Your task to perform on an android device: turn vacation reply on in the gmail app Image 0: 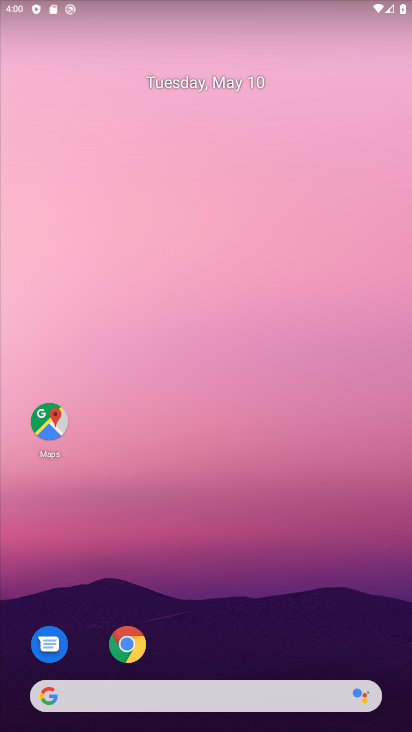
Step 0: drag from (145, 667) to (201, 422)
Your task to perform on an android device: turn vacation reply on in the gmail app Image 1: 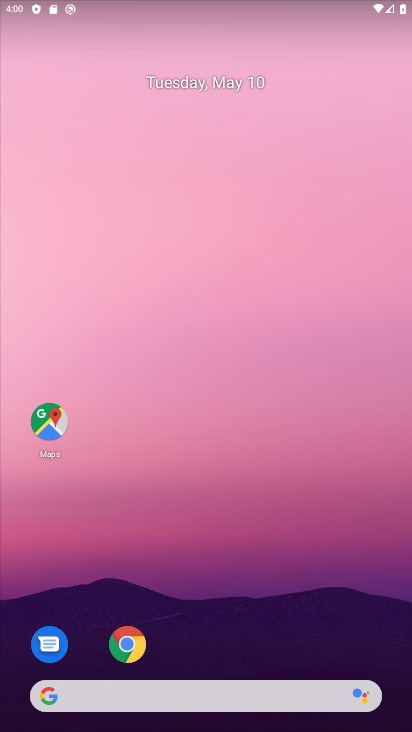
Step 1: drag from (230, 668) to (241, 332)
Your task to perform on an android device: turn vacation reply on in the gmail app Image 2: 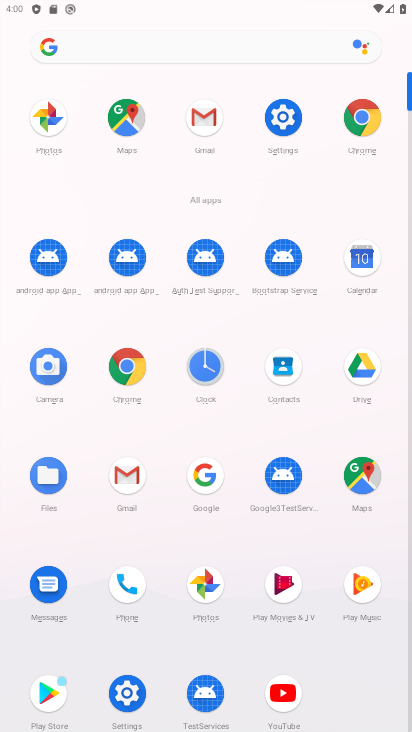
Step 2: click (282, 121)
Your task to perform on an android device: turn vacation reply on in the gmail app Image 3: 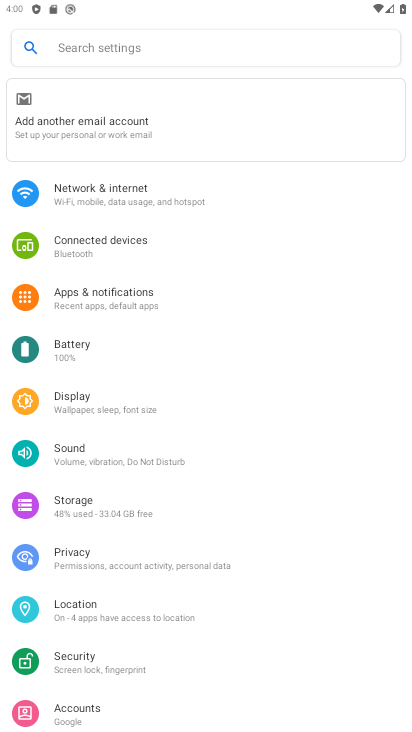
Step 3: click (74, 450)
Your task to perform on an android device: turn vacation reply on in the gmail app Image 4: 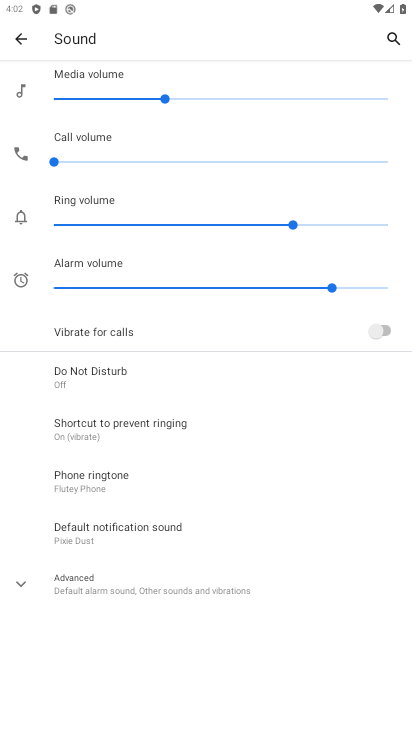
Step 4: press home button
Your task to perform on an android device: turn vacation reply on in the gmail app Image 5: 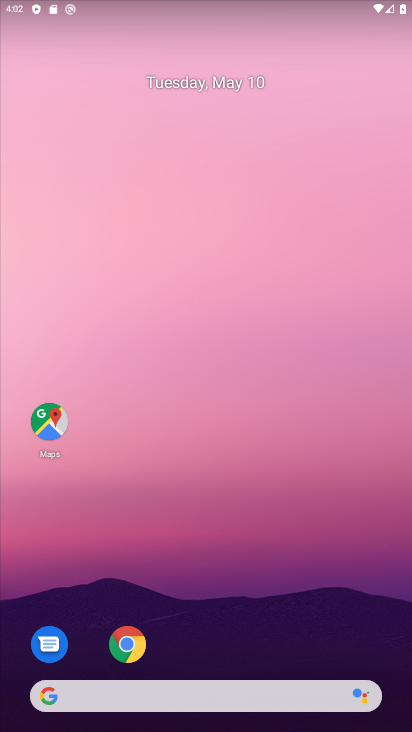
Step 5: drag from (161, 676) to (209, 352)
Your task to perform on an android device: turn vacation reply on in the gmail app Image 6: 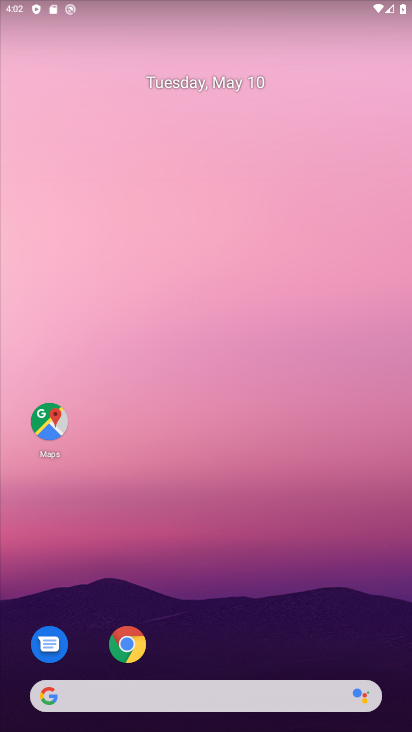
Step 6: drag from (241, 674) to (241, 225)
Your task to perform on an android device: turn vacation reply on in the gmail app Image 7: 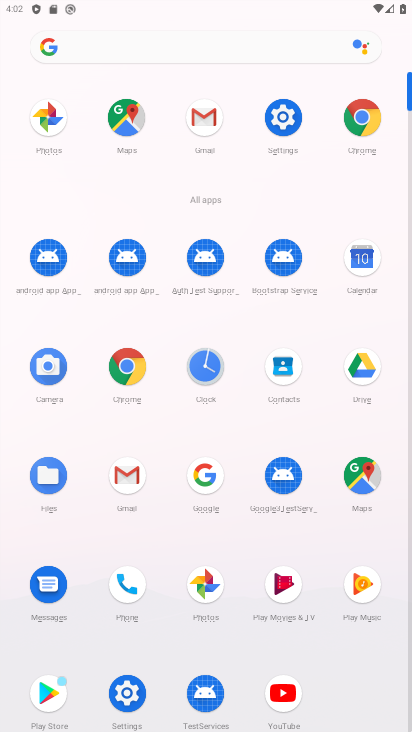
Step 7: click (211, 125)
Your task to perform on an android device: turn vacation reply on in the gmail app Image 8: 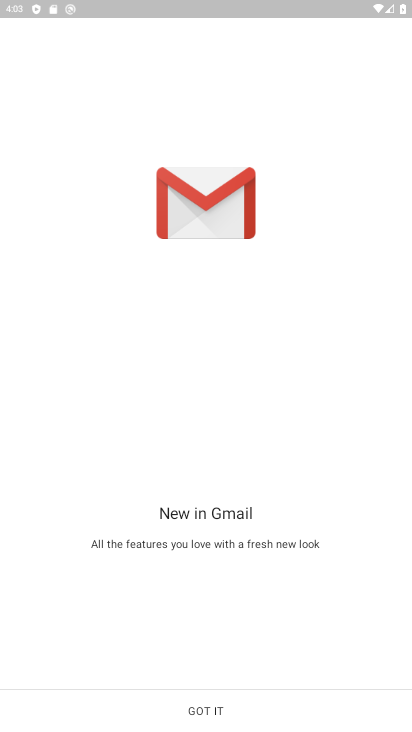
Step 8: click (208, 703)
Your task to perform on an android device: turn vacation reply on in the gmail app Image 9: 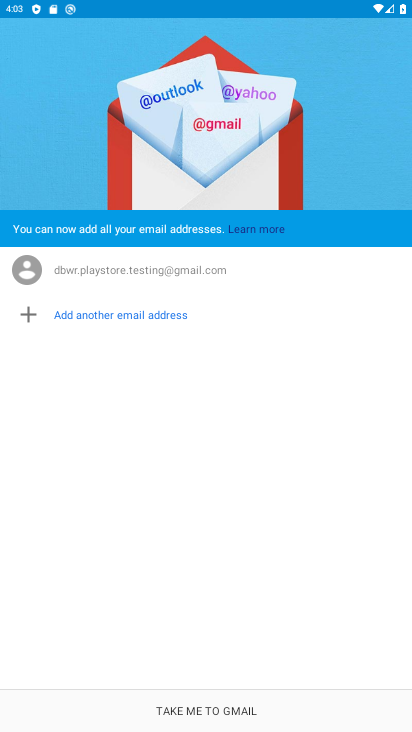
Step 9: click (198, 712)
Your task to perform on an android device: turn vacation reply on in the gmail app Image 10: 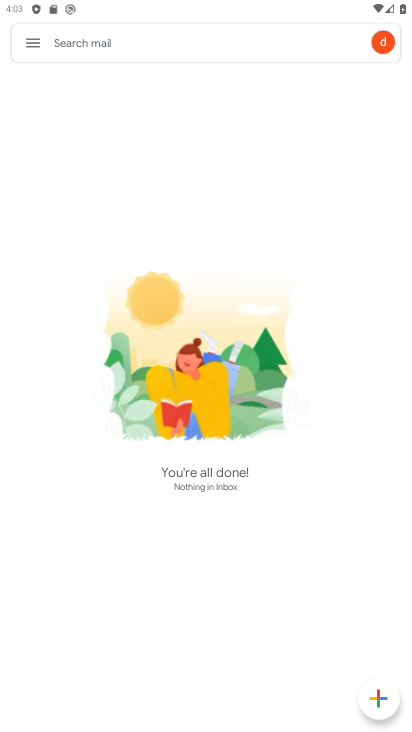
Step 10: click (34, 41)
Your task to perform on an android device: turn vacation reply on in the gmail app Image 11: 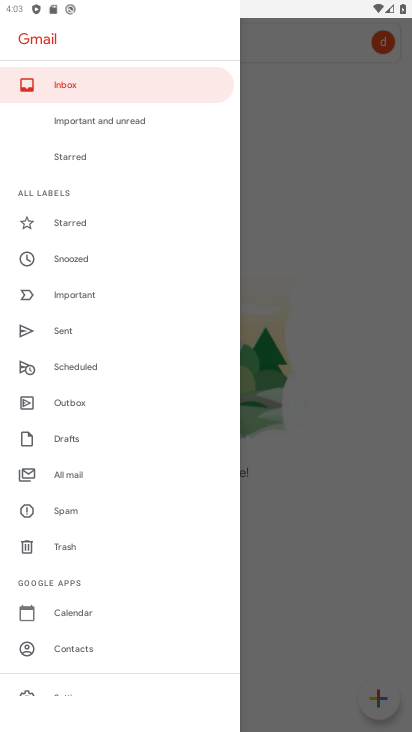
Step 11: drag from (80, 651) to (151, 322)
Your task to perform on an android device: turn vacation reply on in the gmail app Image 12: 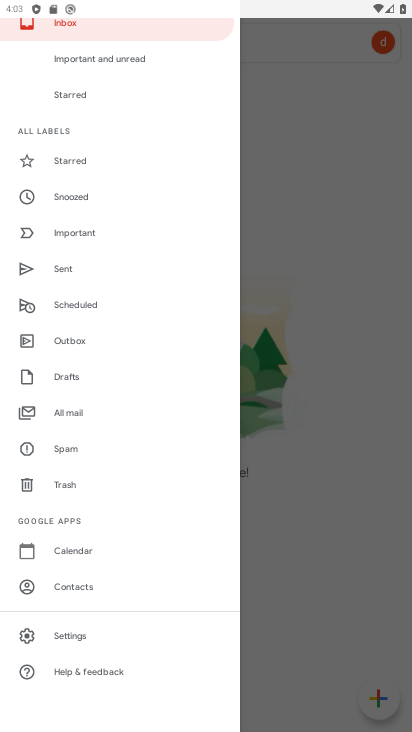
Step 12: click (71, 635)
Your task to perform on an android device: turn vacation reply on in the gmail app Image 13: 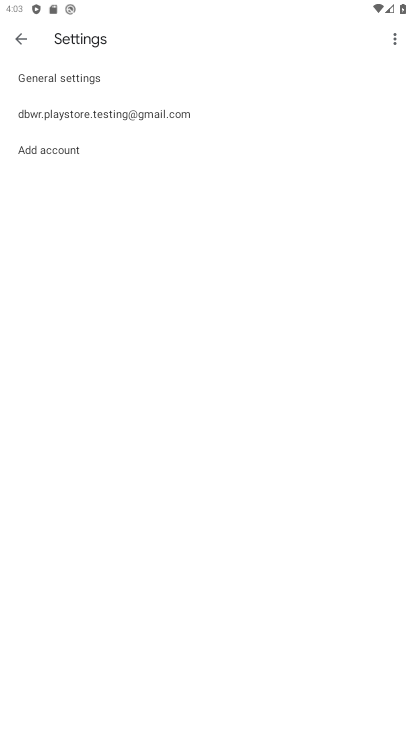
Step 13: click (111, 114)
Your task to perform on an android device: turn vacation reply on in the gmail app Image 14: 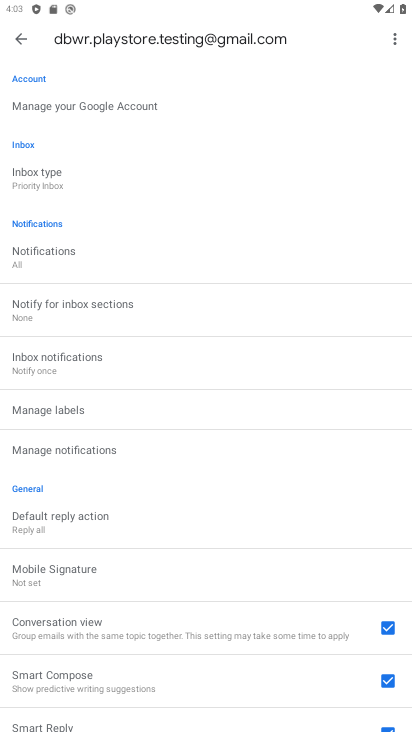
Step 14: drag from (82, 694) to (138, 338)
Your task to perform on an android device: turn vacation reply on in the gmail app Image 15: 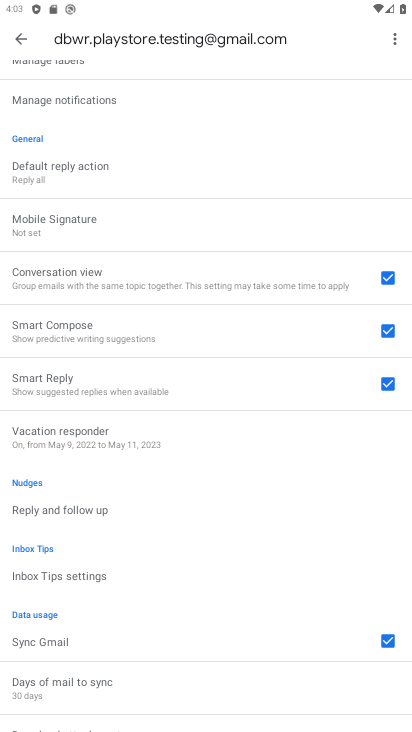
Step 15: click (61, 430)
Your task to perform on an android device: turn vacation reply on in the gmail app Image 16: 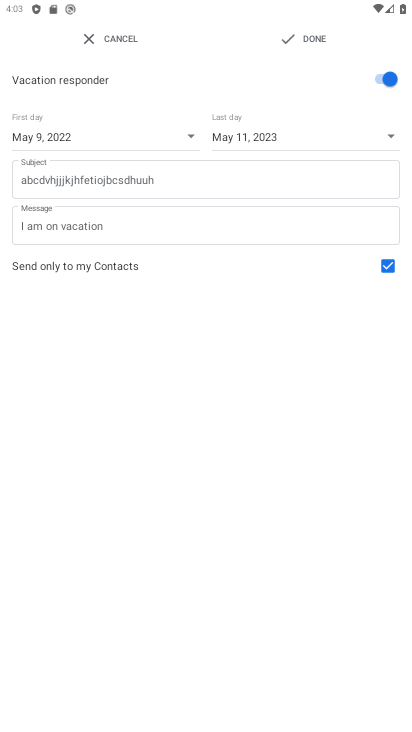
Step 16: click (314, 37)
Your task to perform on an android device: turn vacation reply on in the gmail app Image 17: 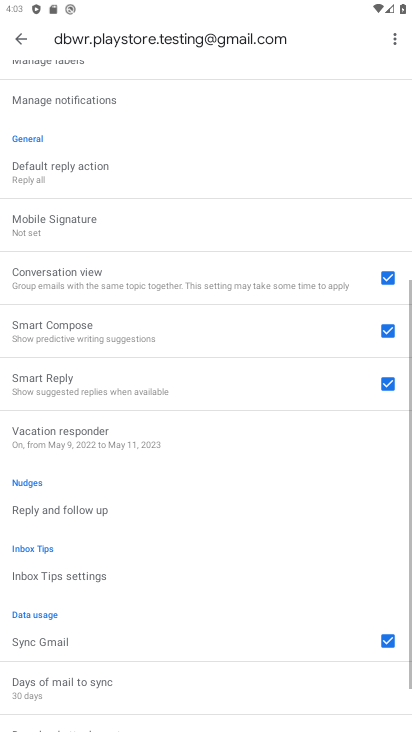
Step 17: task complete